Your task to perform on an android device: toggle priority inbox in the gmail app Image 0: 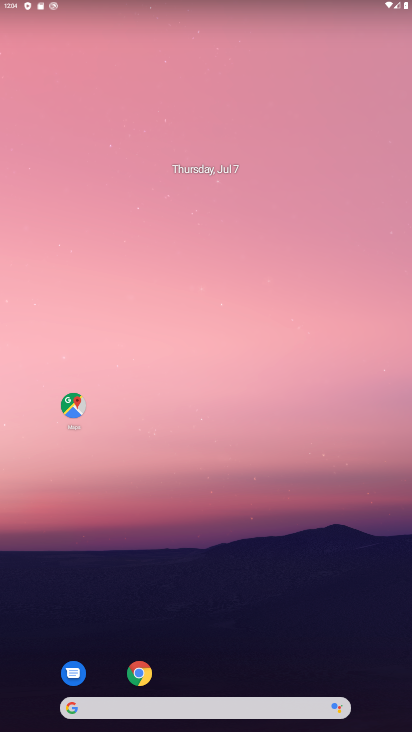
Step 0: click (135, 682)
Your task to perform on an android device: toggle priority inbox in the gmail app Image 1: 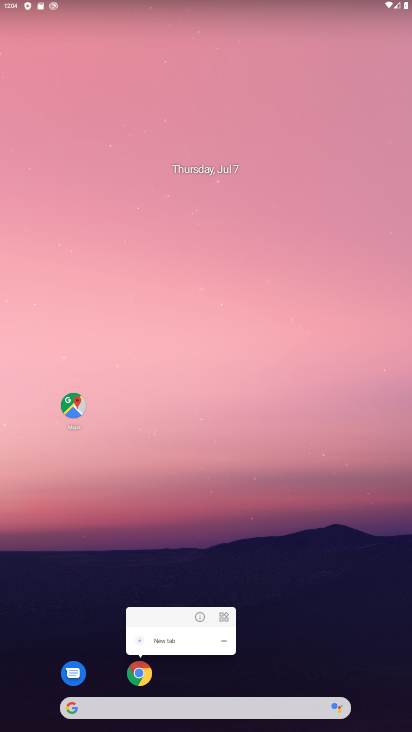
Step 1: drag from (212, 690) to (269, 42)
Your task to perform on an android device: toggle priority inbox in the gmail app Image 2: 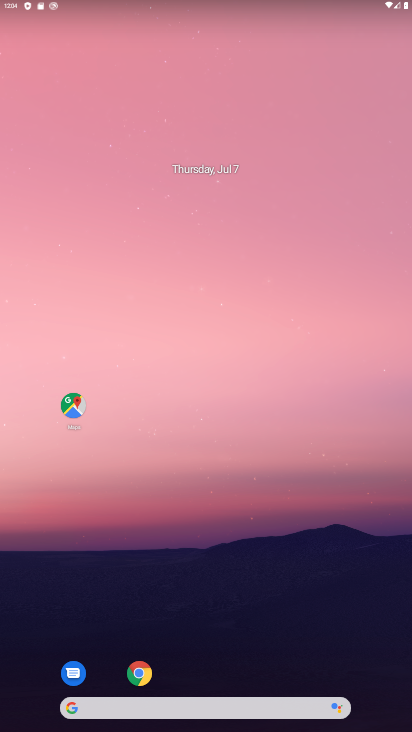
Step 2: drag from (212, 661) to (251, 49)
Your task to perform on an android device: toggle priority inbox in the gmail app Image 3: 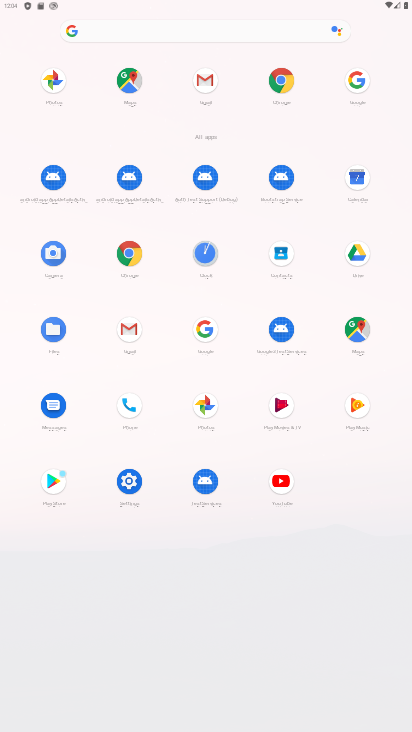
Step 3: click (123, 332)
Your task to perform on an android device: toggle priority inbox in the gmail app Image 4: 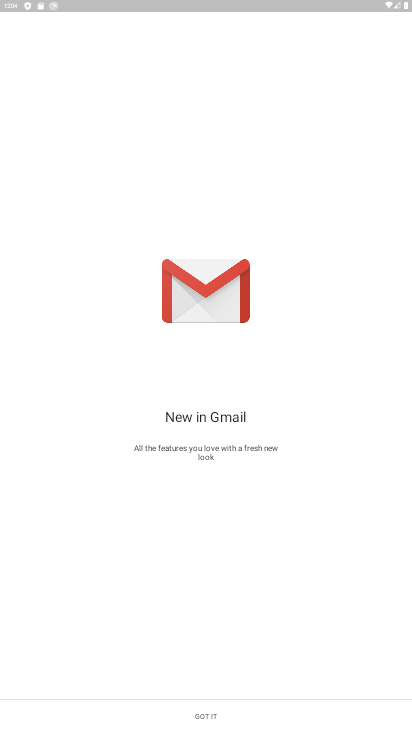
Step 4: click (200, 710)
Your task to perform on an android device: toggle priority inbox in the gmail app Image 5: 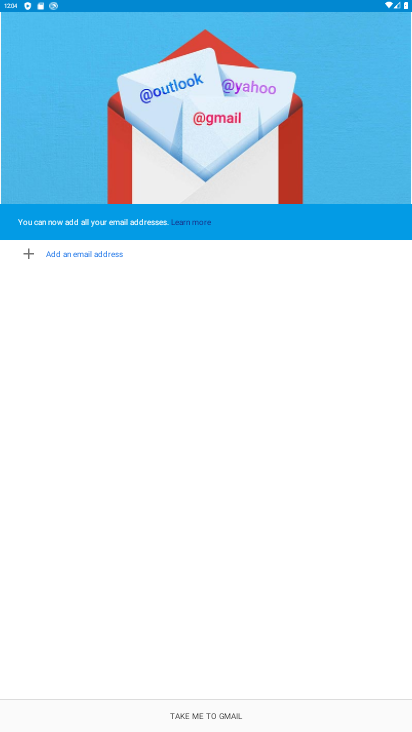
Step 5: click (199, 708)
Your task to perform on an android device: toggle priority inbox in the gmail app Image 6: 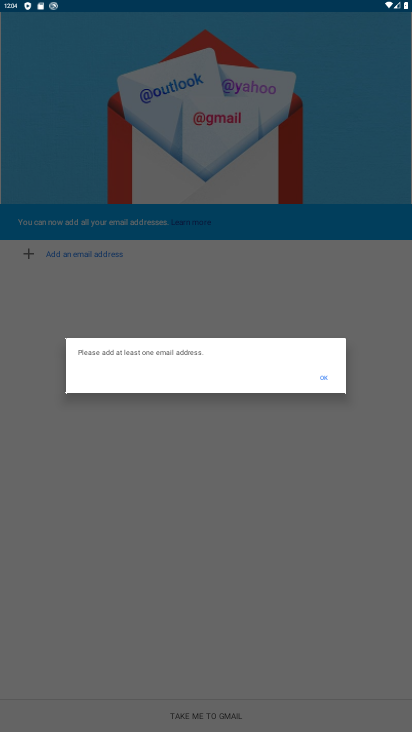
Step 6: task complete